Your task to perform on an android device: Show me the alarms in the clock app Image 0: 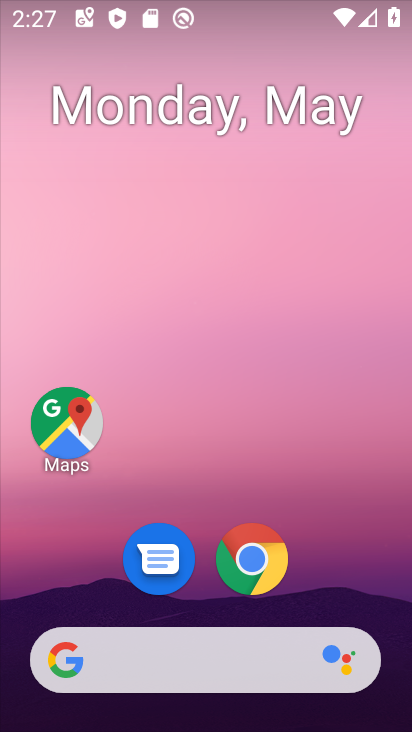
Step 0: drag from (249, 704) to (242, 121)
Your task to perform on an android device: Show me the alarms in the clock app Image 1: 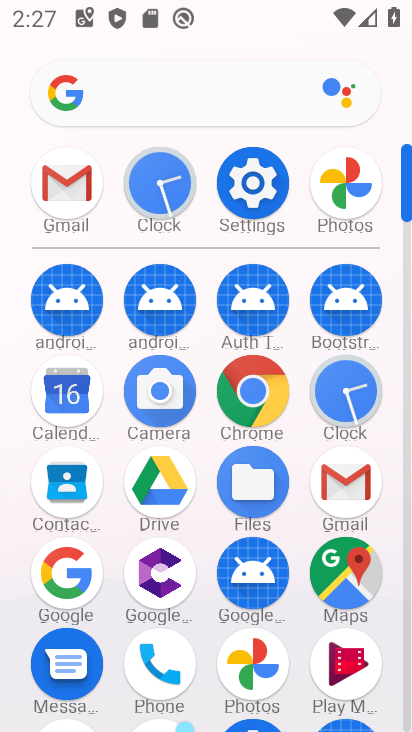
Step 1: click (328, 400)
Your task to perform on an android device: Show me the alarms in the clock app Image 2: 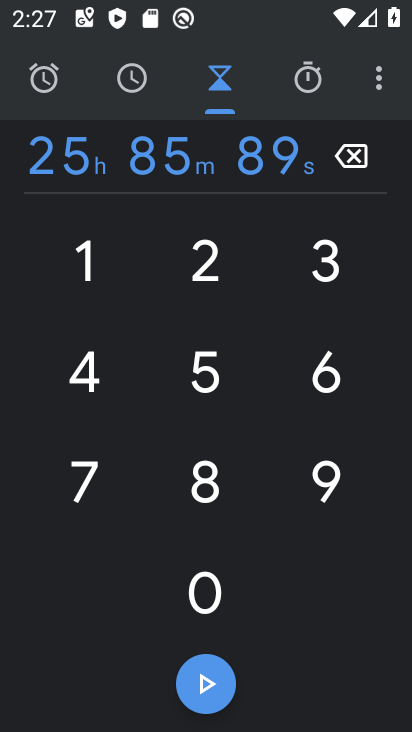
Step 2: click (54, 90)
Your task to perform on an android device: Show me the alarms in the clock app Image 3: 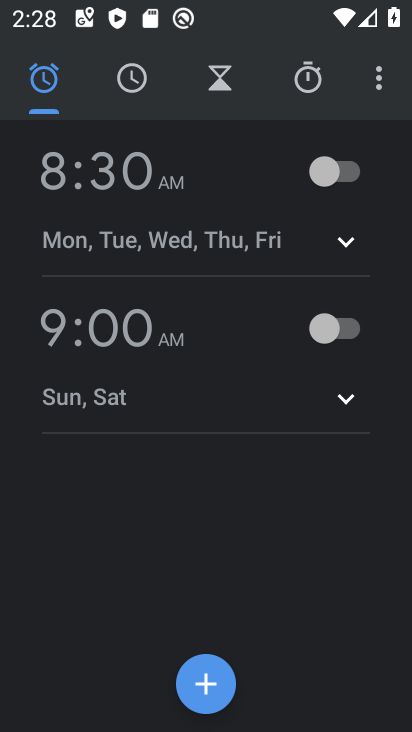
Step 3: task complete